Your task to perform on an android device: Go to notification settings Image 0: 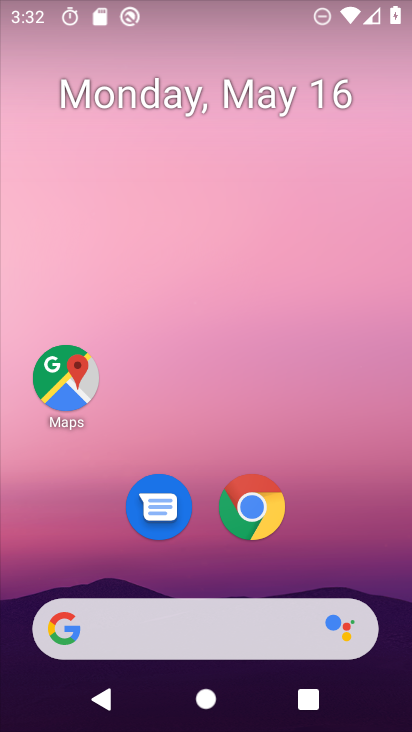
Step 0: drag from (329, 385) to (312, 6)
Your task to perform on an android device: Go to notification settings Image 1: 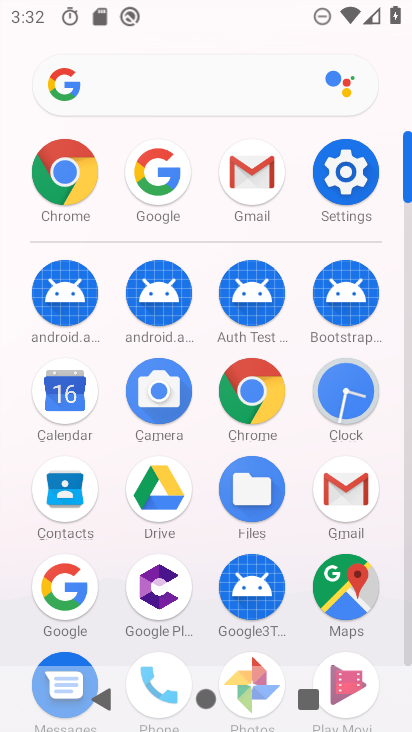
Step 1: click (342, 184)
Your task to perform on an android device: Go to notification settings Image 2: 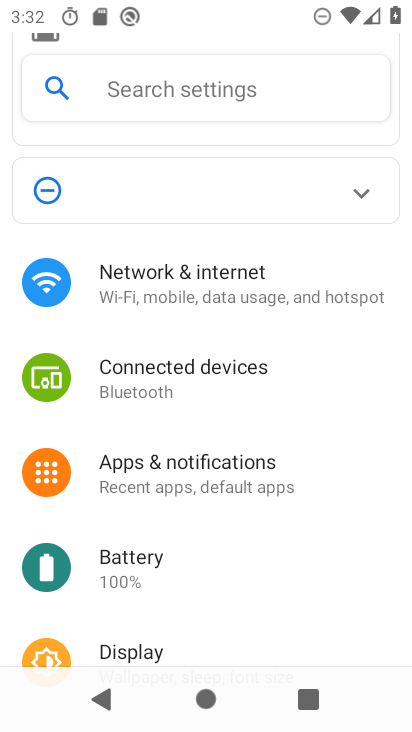
Step 2: click (242, 470)
Your task to perform on an android device: Go to notification settings Image 3: 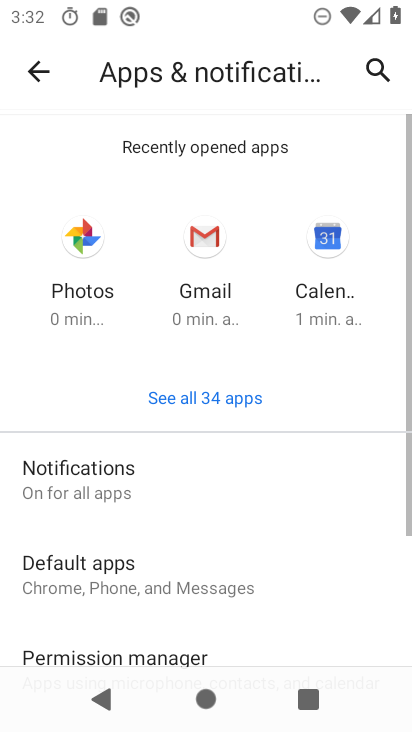
Step 3: click (49, 491)
Your task to perform on an android device: Go to notification settings Image 4: 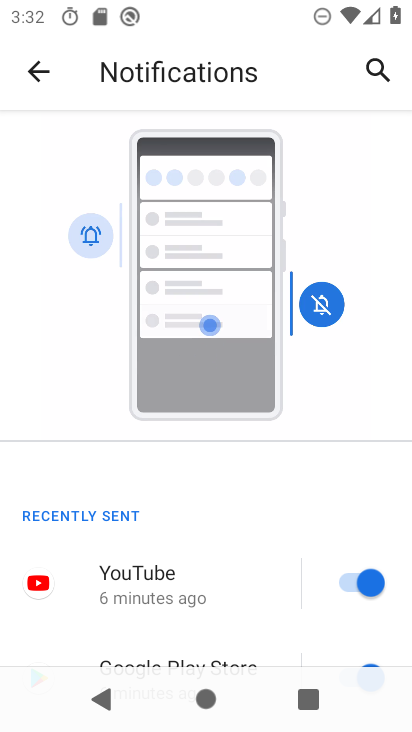
Step 4: task complete